Your task to perform on an android device: empty trash in the gmail app Image 0: 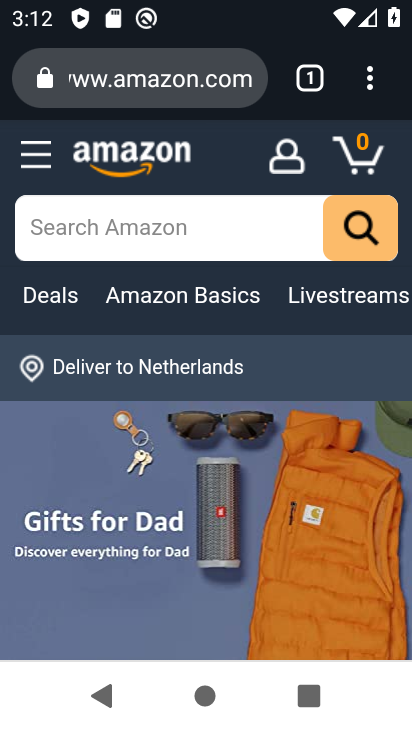
Step 0: drag from (191, 551) to (193, 255)
Your task to perform on an android device: empty trash in the gmail app Image 1: 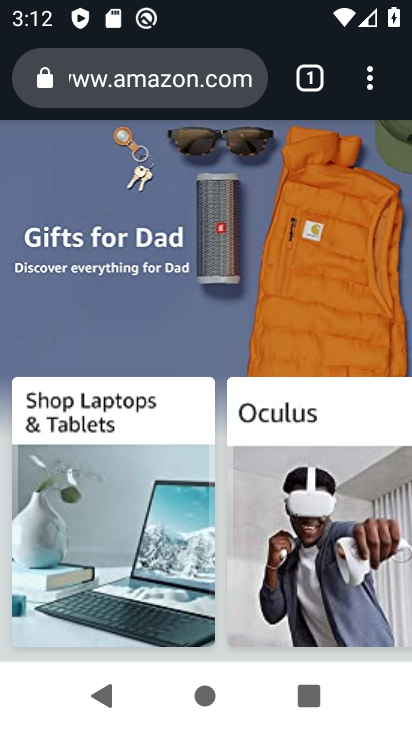
Step 1: press home button
Your task to perform on an android device: empty trash in the gmail app Image 2: 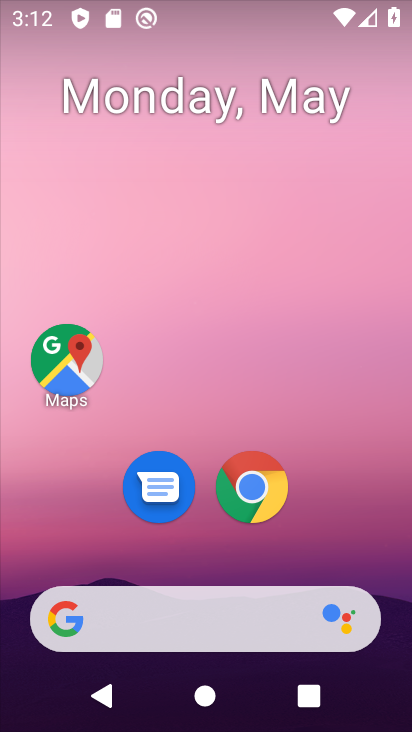
Step 2: drag from (161, 595) to (189, 243)
Your task to perform on an android device: empty trash in the gmail app Image 3: 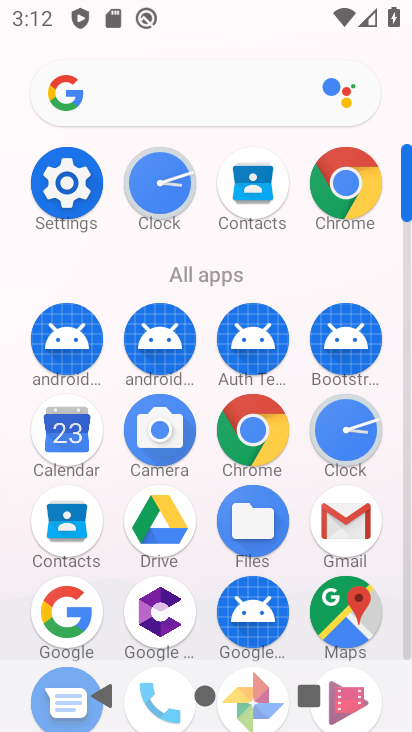
Step 3: click (345, 522)
Your task to perform on an android device: empty trash in the gmail app Image 4: 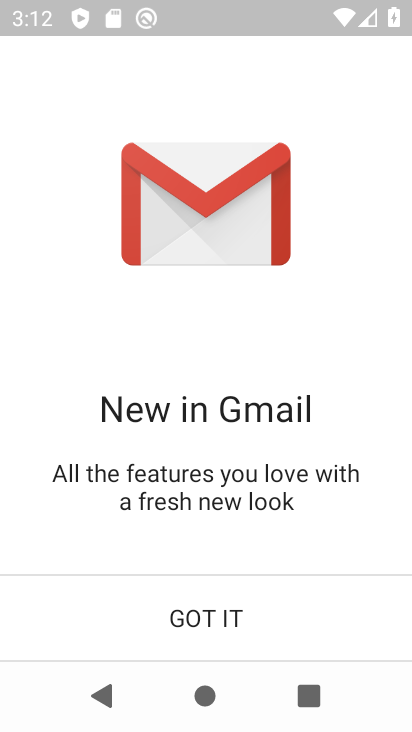
Step 4: click (237, 626)
Your task to perform on an android device: empty trash in the gmail app Image 5: 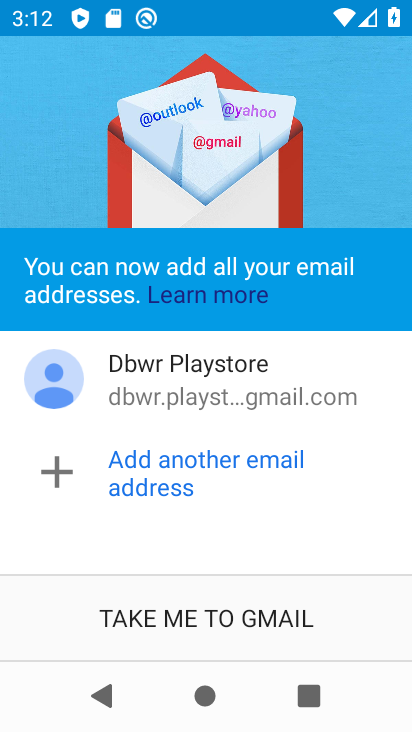
Step 5: click (231, 619)
Your task to perform on an android device: empty trash in the gmail app Image 6: 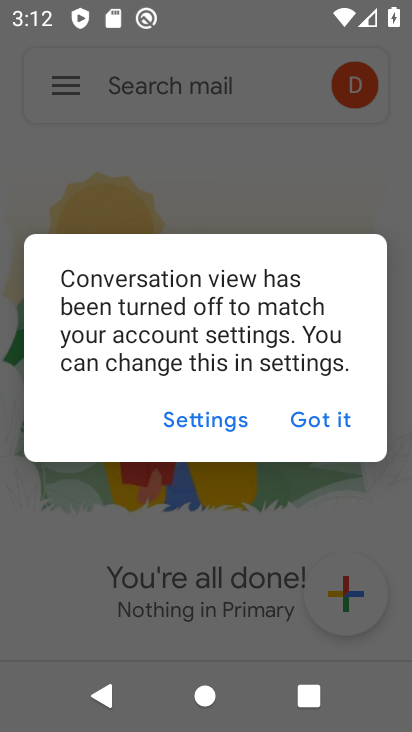
Step 6: click (342, 422)
Your task to perform on an android device: empty trash in the gmail app Image 7: 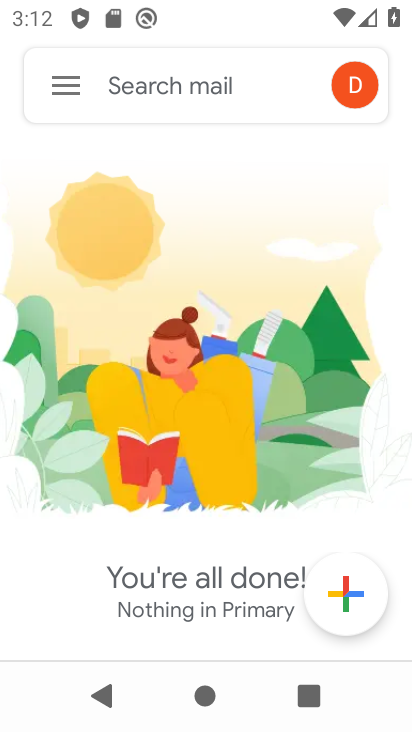
Step 7: click (72, 84)
Your task to perform on an android device: empty trash in the gmail app Image 8: 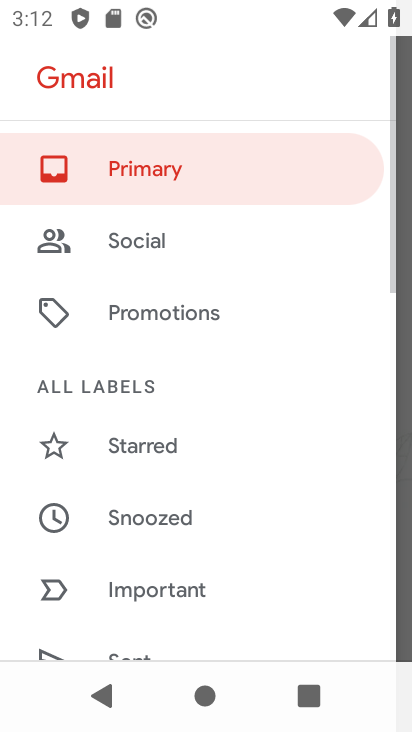
Step 8: drag from (175, 611) to (175, 257)
Your task to perform on an android device: empty trash in the gmail app Image 9: 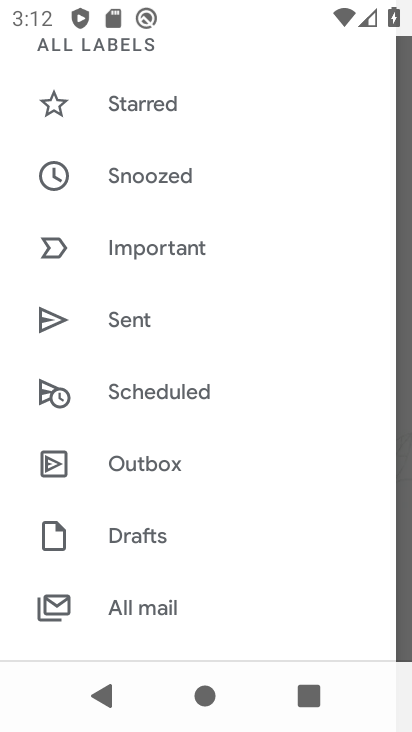
Step 9: drag from (161, 635) to (162, 290)
Your task to perform on an android device: empty trash in the gmail app Image 10: 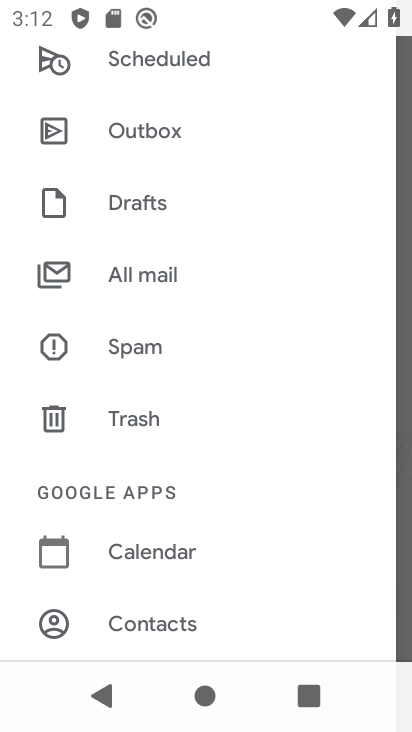
Step 10: click (171, 415)
Your task to perform on an android device: empty trash in the gmail app Image 11: 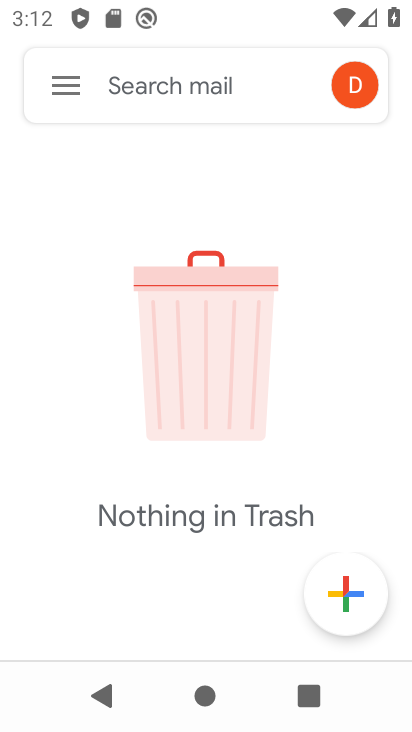
Step 11: task complete